Your task to perform on an android device: Show me the alarms in the clock app Image 0: 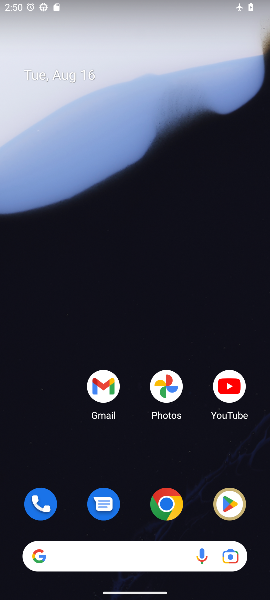
Step 0: drag from (136, 518) to (92, 89)
Your task to perform on an android device: Show me the alarms in the clock app Image 1: 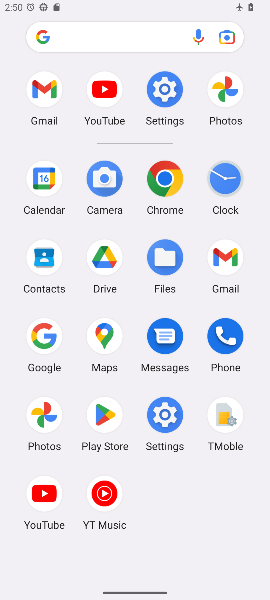
Step 1: click (213, 181)
Your task to perform on an android device: Show me the alarms in the clock app Image 2: 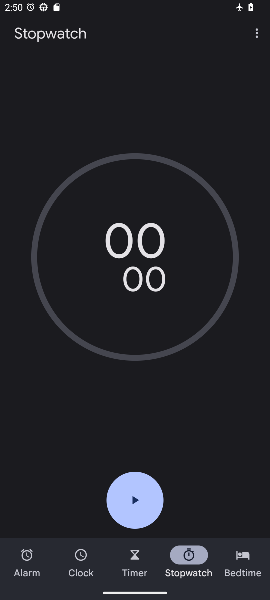
Step 2: click (23, 554)
Your task to perform on an android device: Show me the alarms in the clock app Image 3: 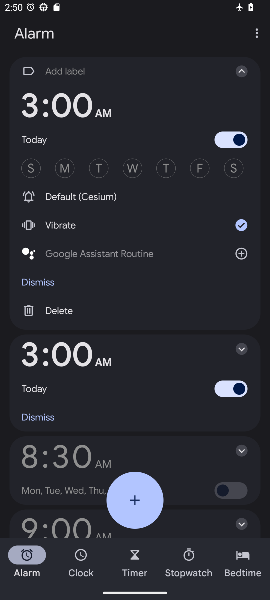
Step 3: task complete